Your task to perform on an android device: Go to privacy settings Image 0: 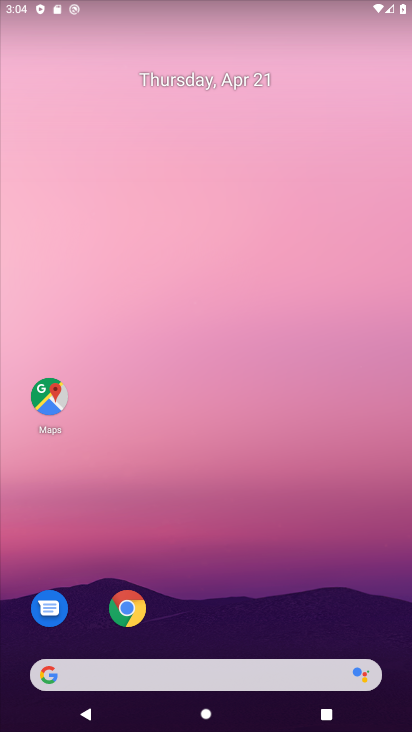
Step 0: drag from (319, 605) to (298, 163)
Your task to perform on an android device: Go to privacy settings Image 1: 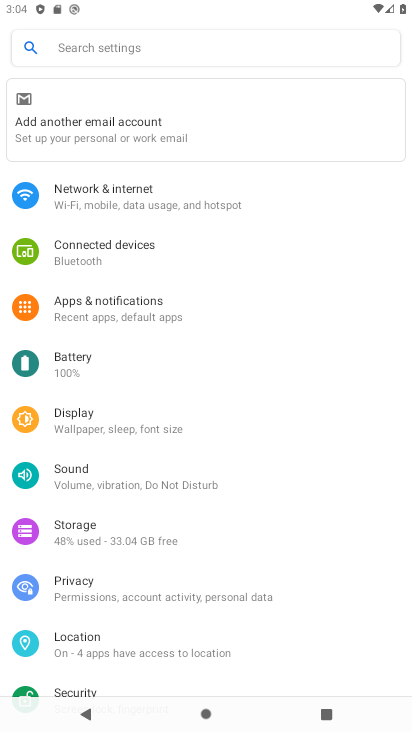
Step 1: click (81, 601)
Your task to perform on an android device: Go to privacy settings Image 2: 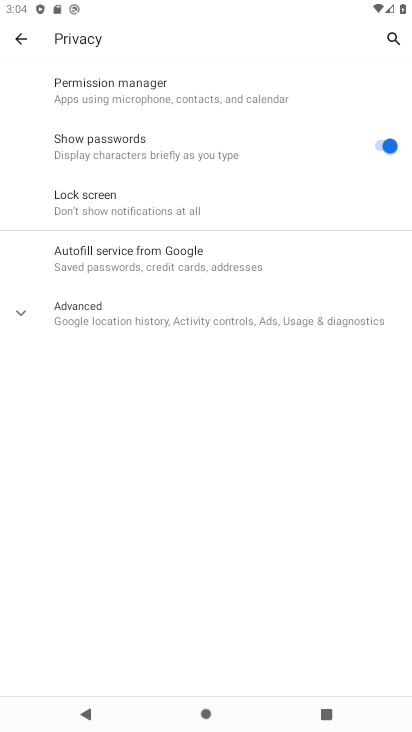
Step 2: task complete